Your task to perform on an android device: Open Google Maps and go to "Timeline" Image 0: 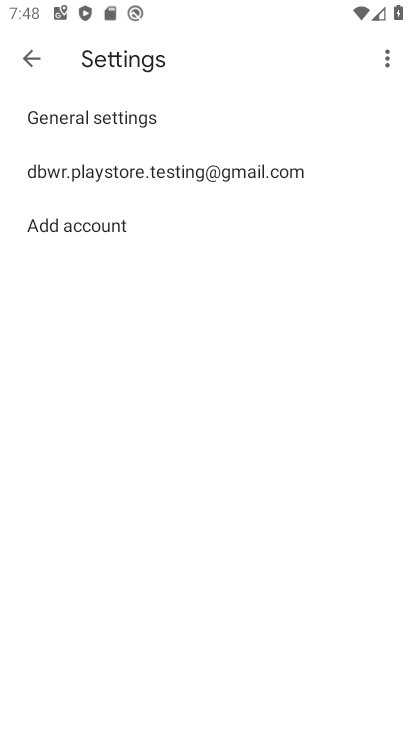
Step 0: press home button
Your task to perform on an android device: Open Google Maps and go to "Timeline" Image 1: 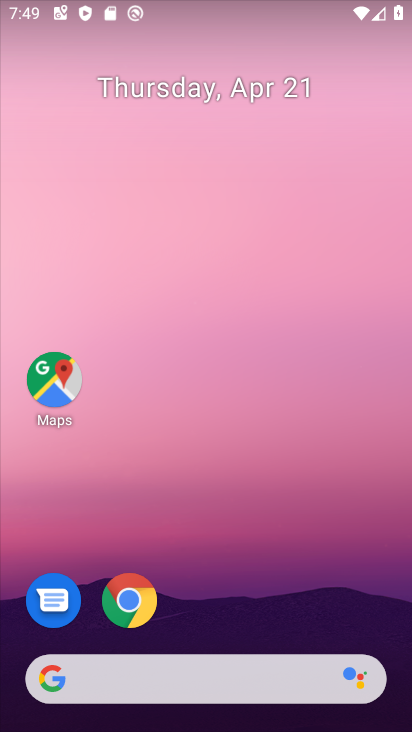
Step 1: click (45, 375)
Your task to perform on an android device: Open Google Maps and go to "Timeline" Image 2: 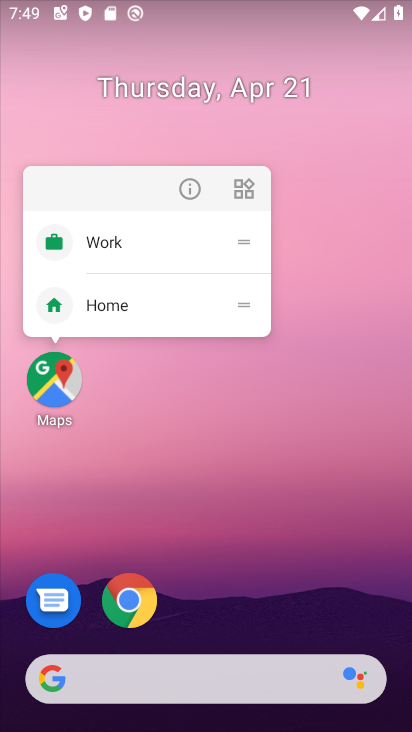
Step 2: click (187, 191)
Your task to perform on an android device: Open Google Maps and go to "Timeline" Image 3: 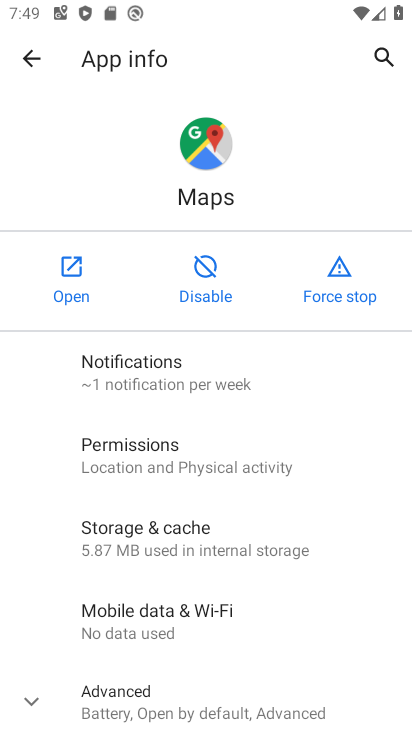
Step 3: click (67, 272)
Your task to perform on an android device: Open Google Maps and go to "Timeline" Image 4: 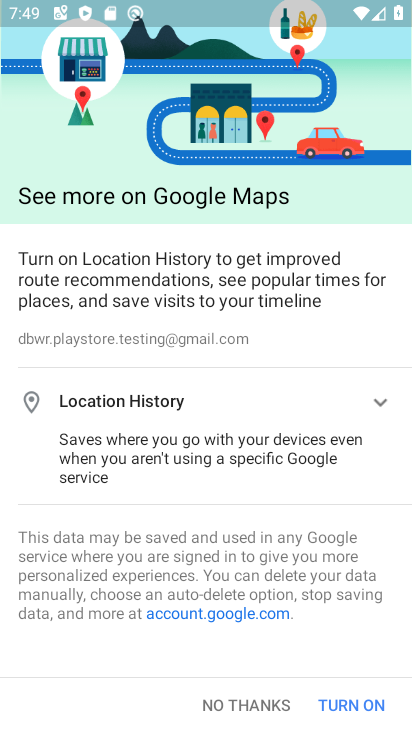
Step 4: click (271, 691)
Your task to perform on an android device: Open Google Maps and go to "Timeline" Image 5: 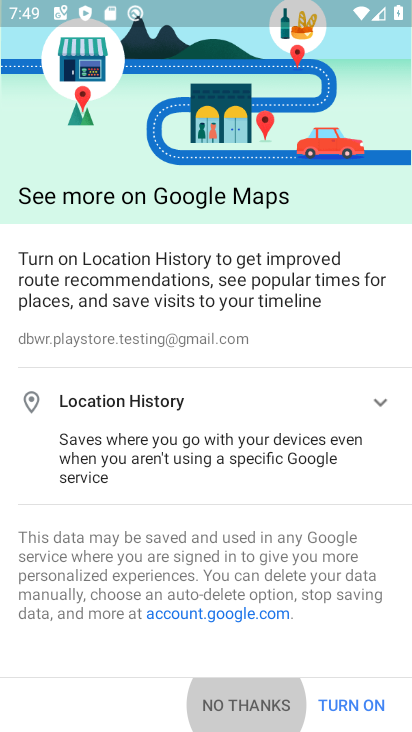
Step 5: click (264, 697)
Your task to perform on an android device: Open Google Maps and go to "Timeline" Image 6: 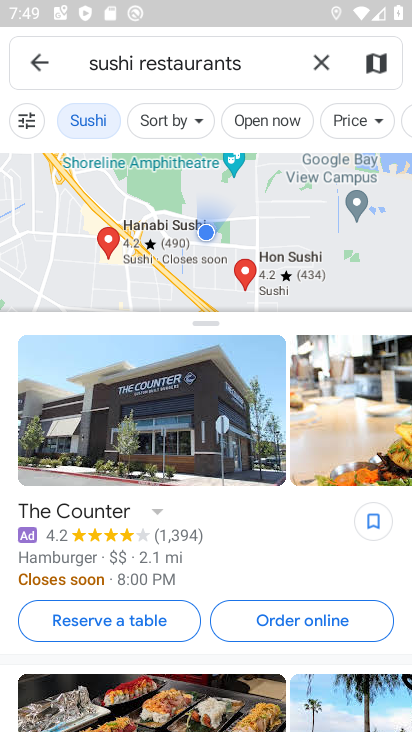
Step 6: click (321, 60)
Your task to perform on an android device: Open Google Maps and go to "Timeline" Image 7: 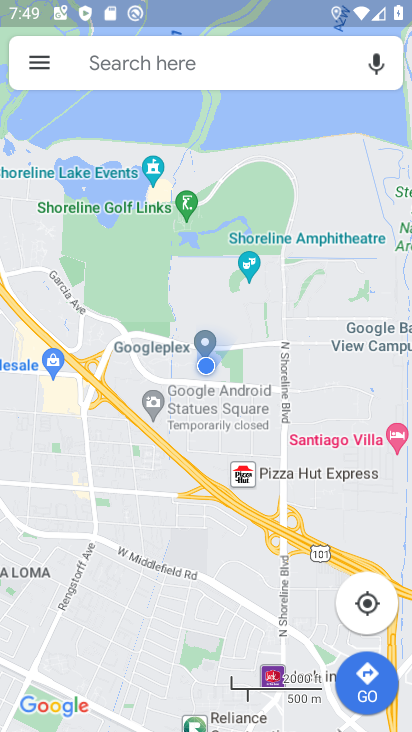
Step 7: click (48, 65)
Your task to perform on an android device: Open Google Maps and go to "Timeline" Image 8: 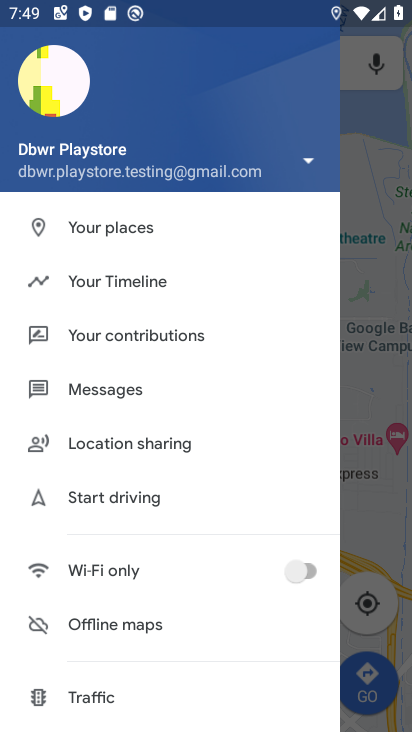
Step 8: click (153, 266)
Your task to perform on an android device: Open Google Maps and go to "Timeline" Image 9: 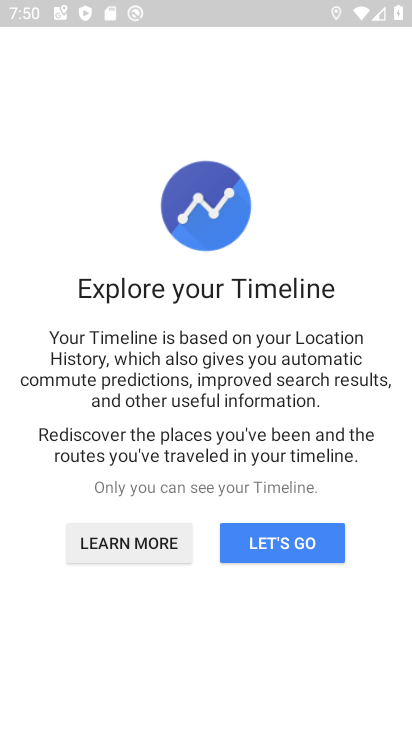
Step 9: task complete